Your task to perform on an android device: find which apps use the phone's location Image 0: 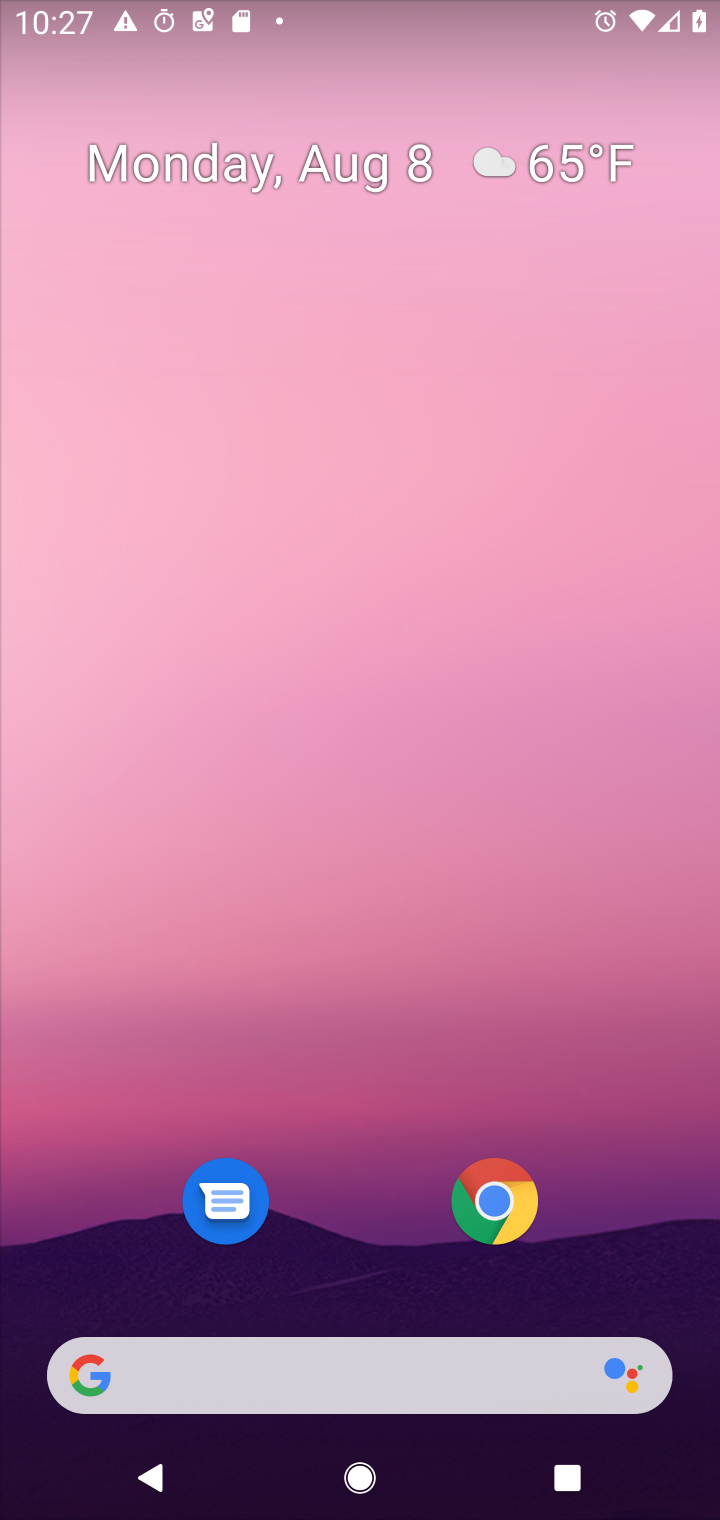
Step 0: press home button
Your task to perform on an android device: find which apps use the phone's location Image 1: 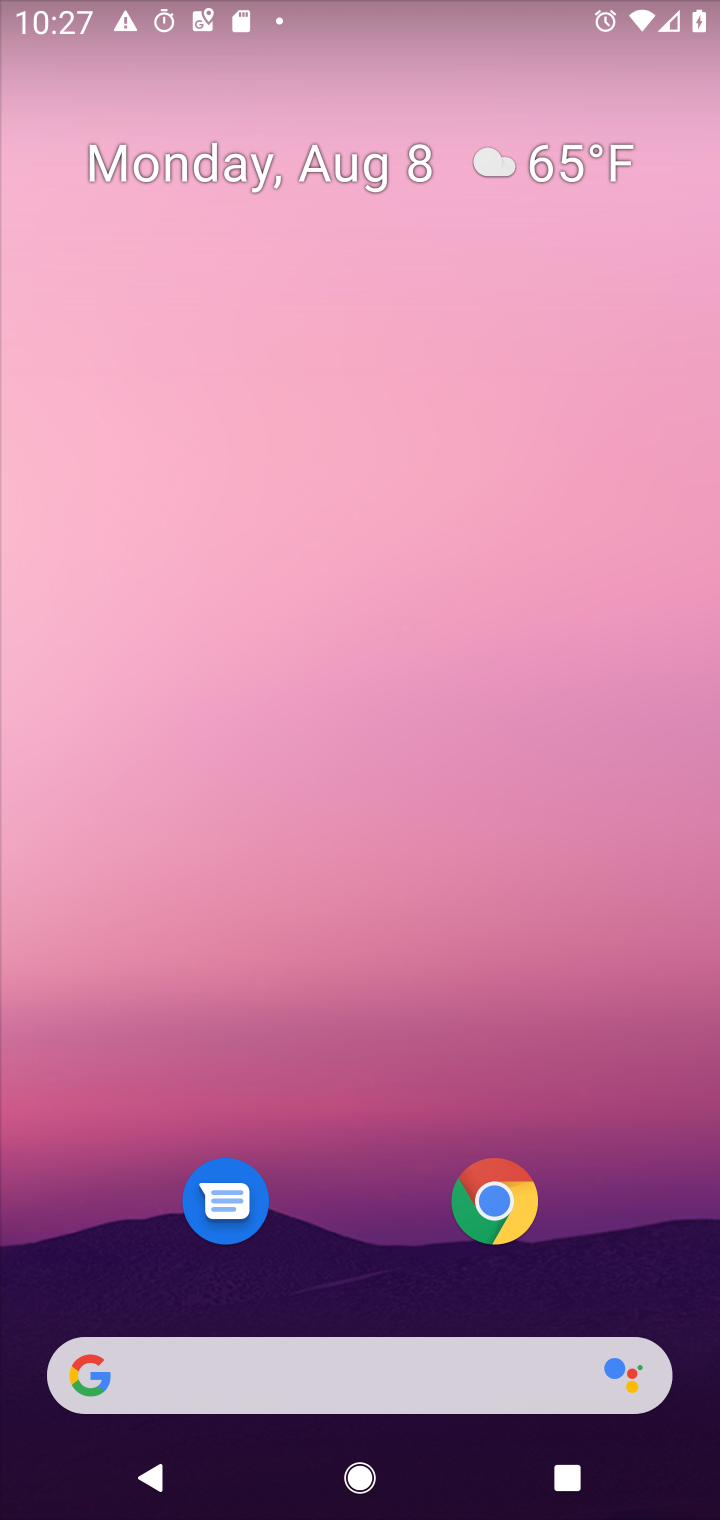
Step 1: drag from (588, 1248) to (624, 259)
Your task to perform on an android device: find which apps use the phone's location Image 2: 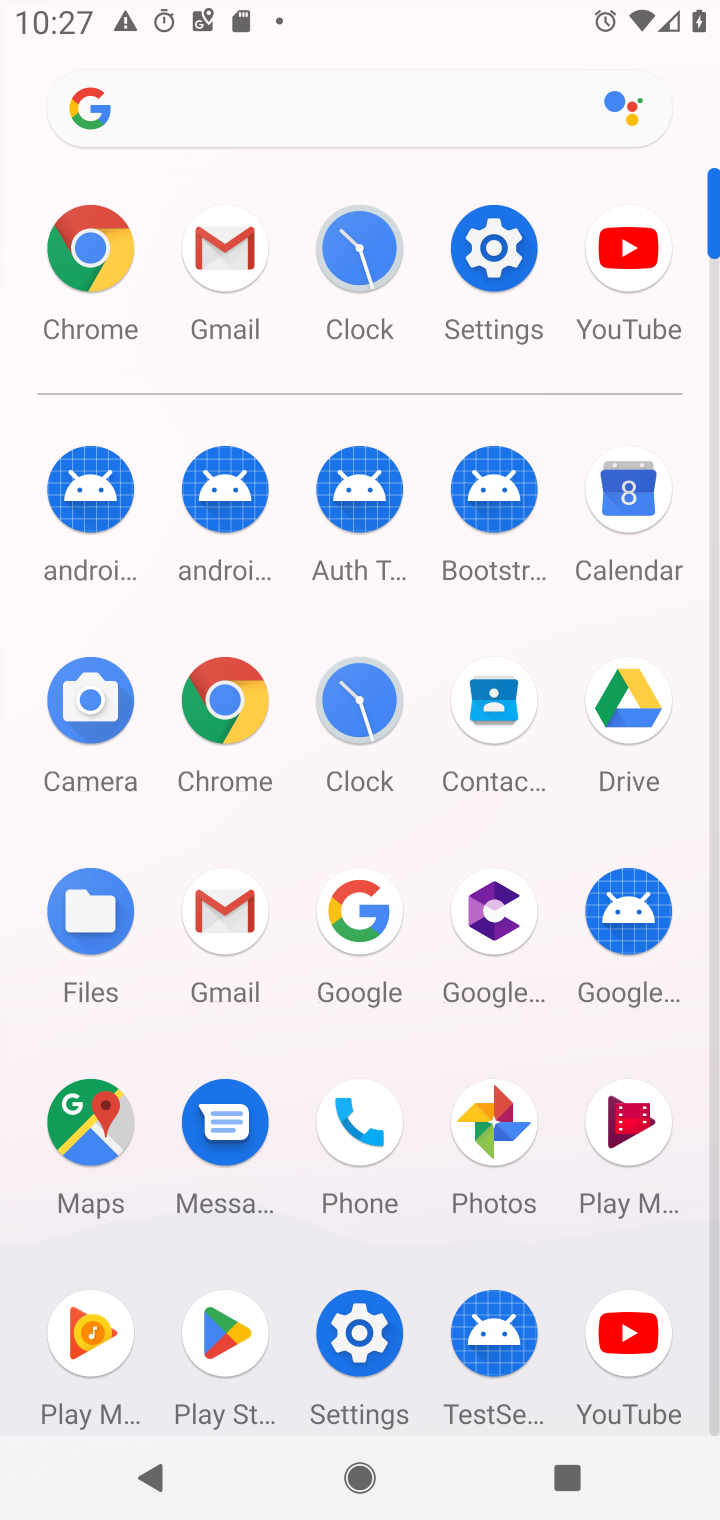
Step 2: click (486, 253)
Your task to perform on an android device: find which apps use the phone's location Image 3: 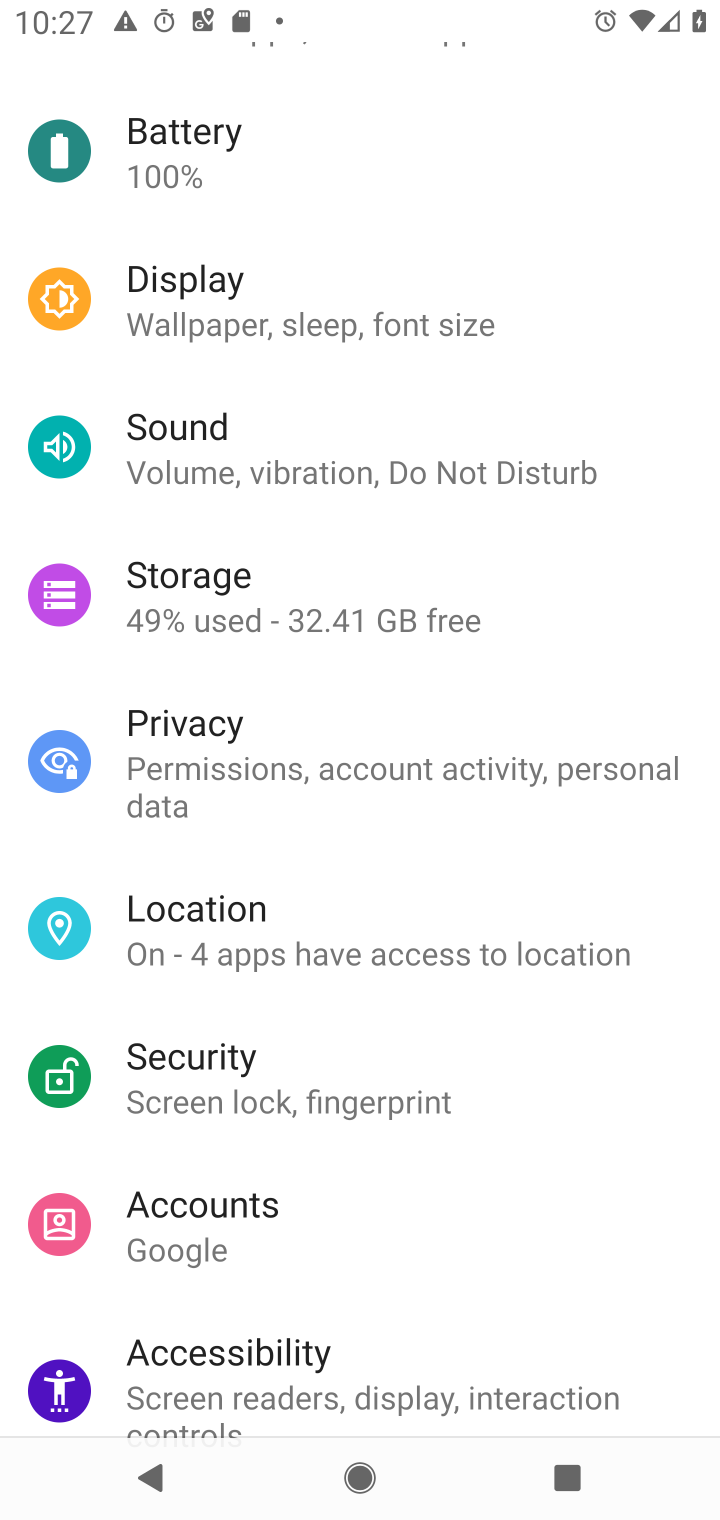
Step 3: drag from (666, 881) to (694, 701)
Your task to perform on an android device: find which apps use the phone's location Image 4: 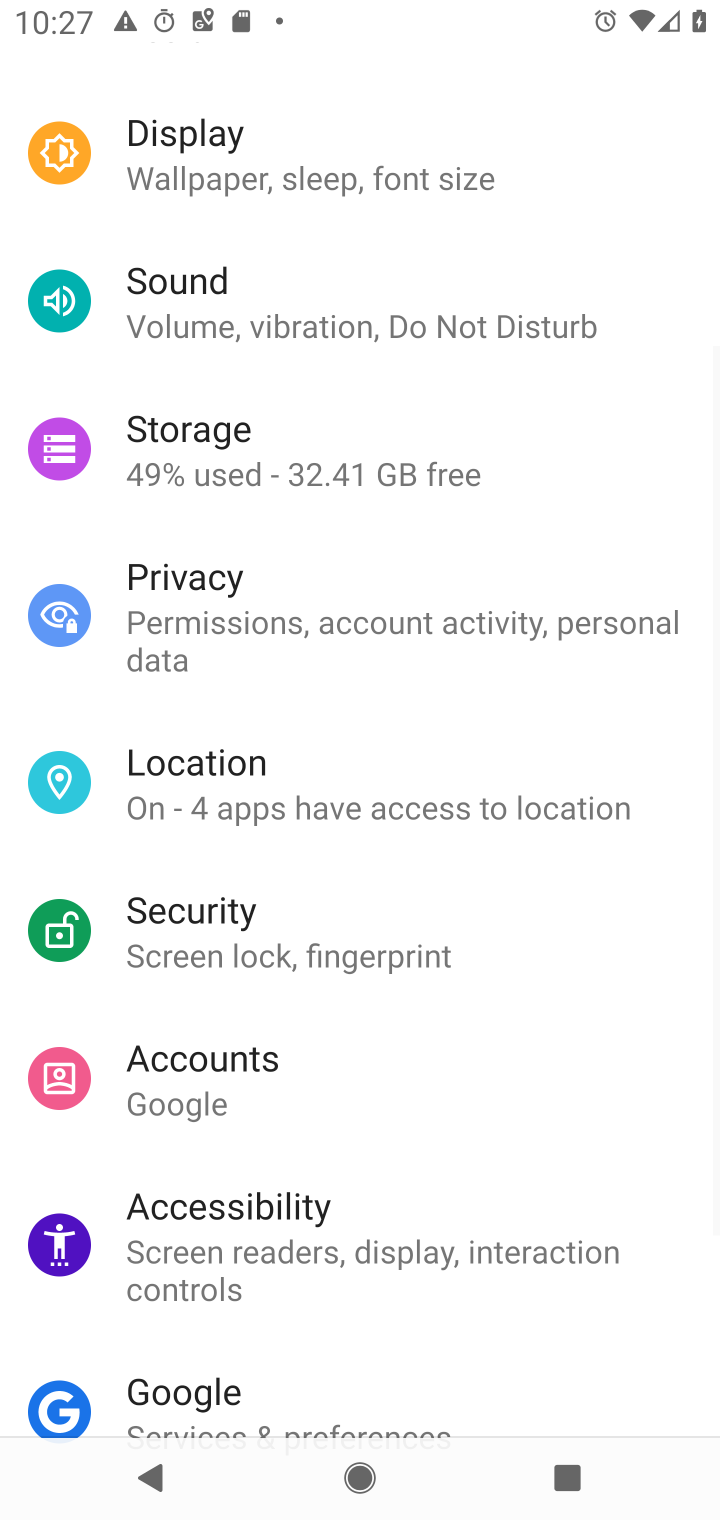
Step 4: drag from (641, 972) to (652, 733)
Your task to perform on an android device: find which apps use the phone's location Image 5: 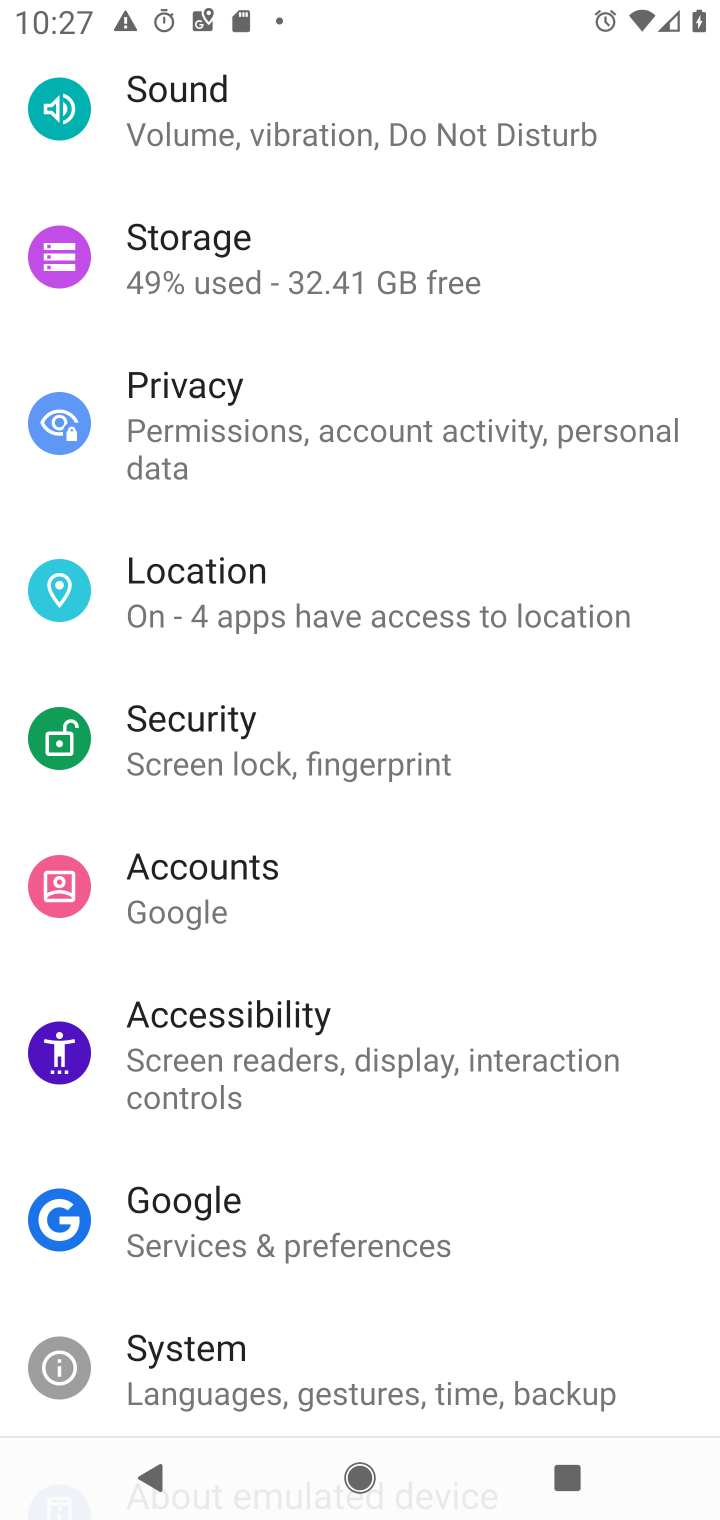
Step 5: click (527, 630)
Your task to perform on an android device: find which apps use the phone's location Image 6: 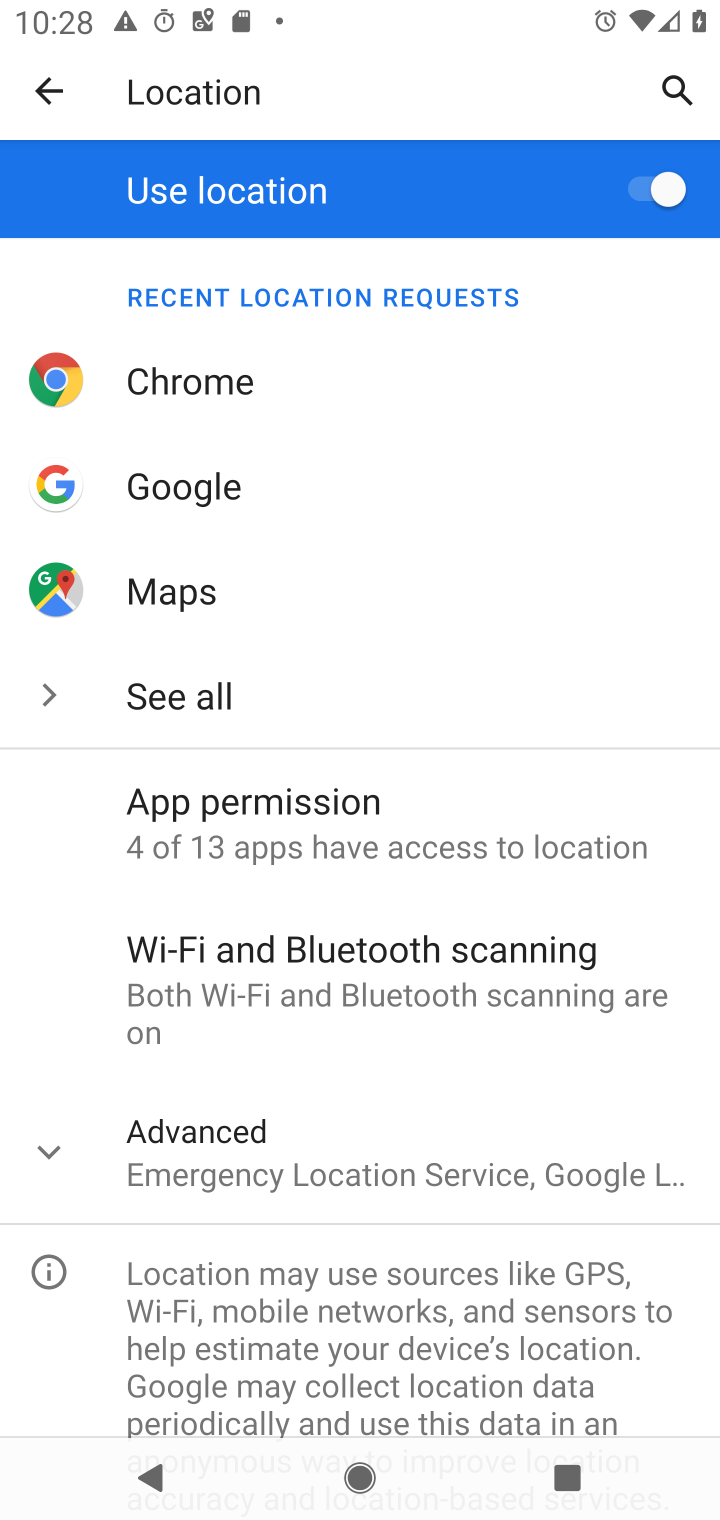
Step 6: click (420, 819)
Your task to perform on an android device: find which apps use the phone's location Image 7: 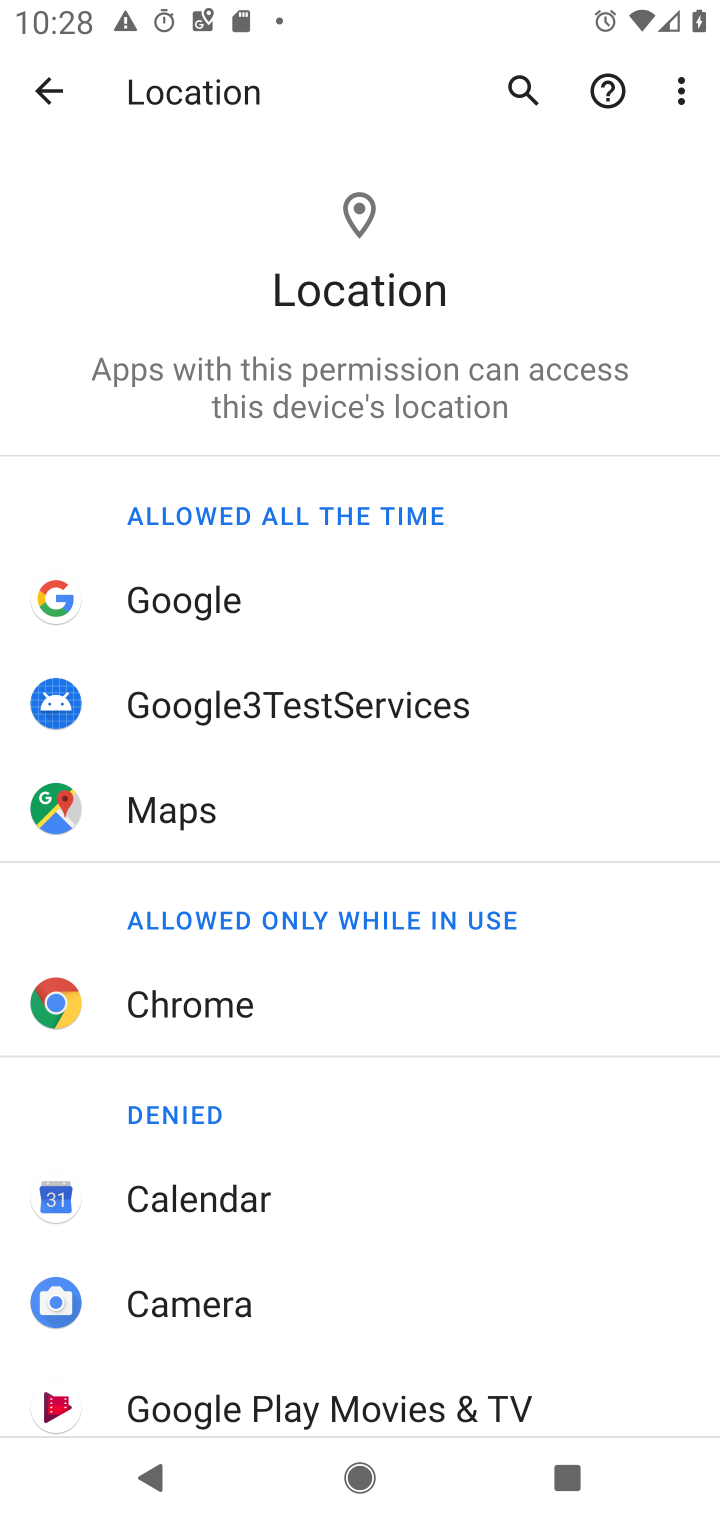
Step 7: drag from (544, 1080) to (552, 861)
Your task to perform on an android device: find which apps use the phone's location Image 8: 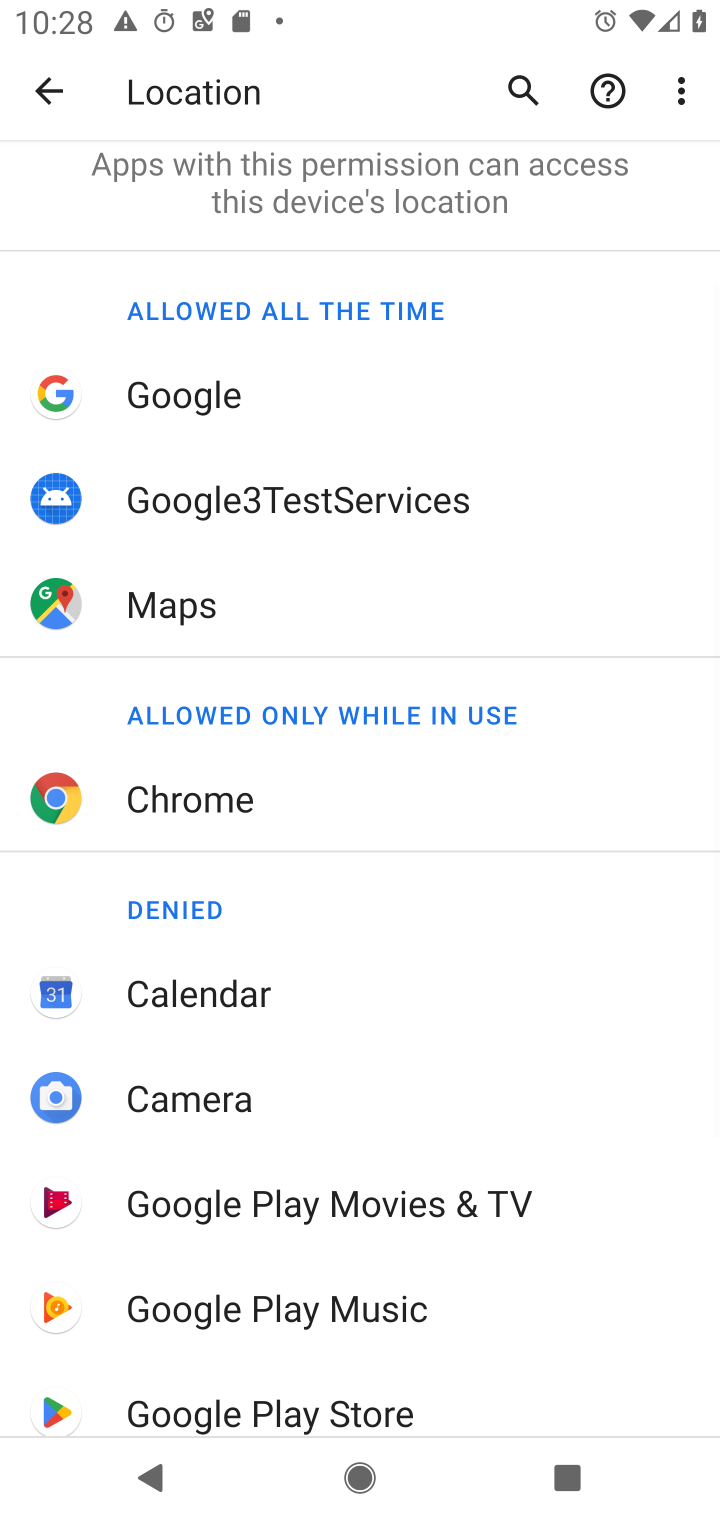
Step 8: drag from (566, 1060) to (574, 808)
Your task to perform on an android device: find which apps use the phone's location Image 9: 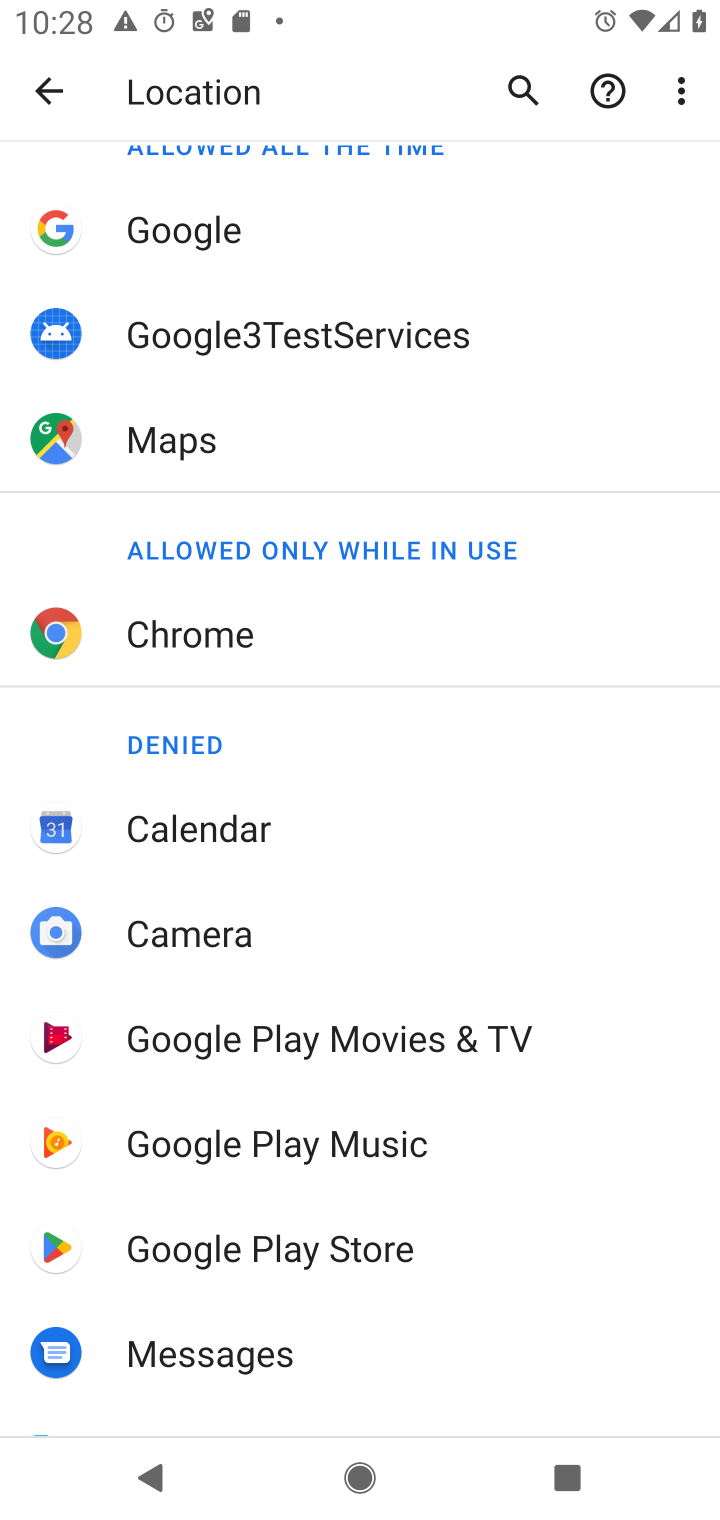
Step 9: drag from (624, 1140) to (609, 740)
Your task to perform on an android device: find which apps use the phone's location Image 10: 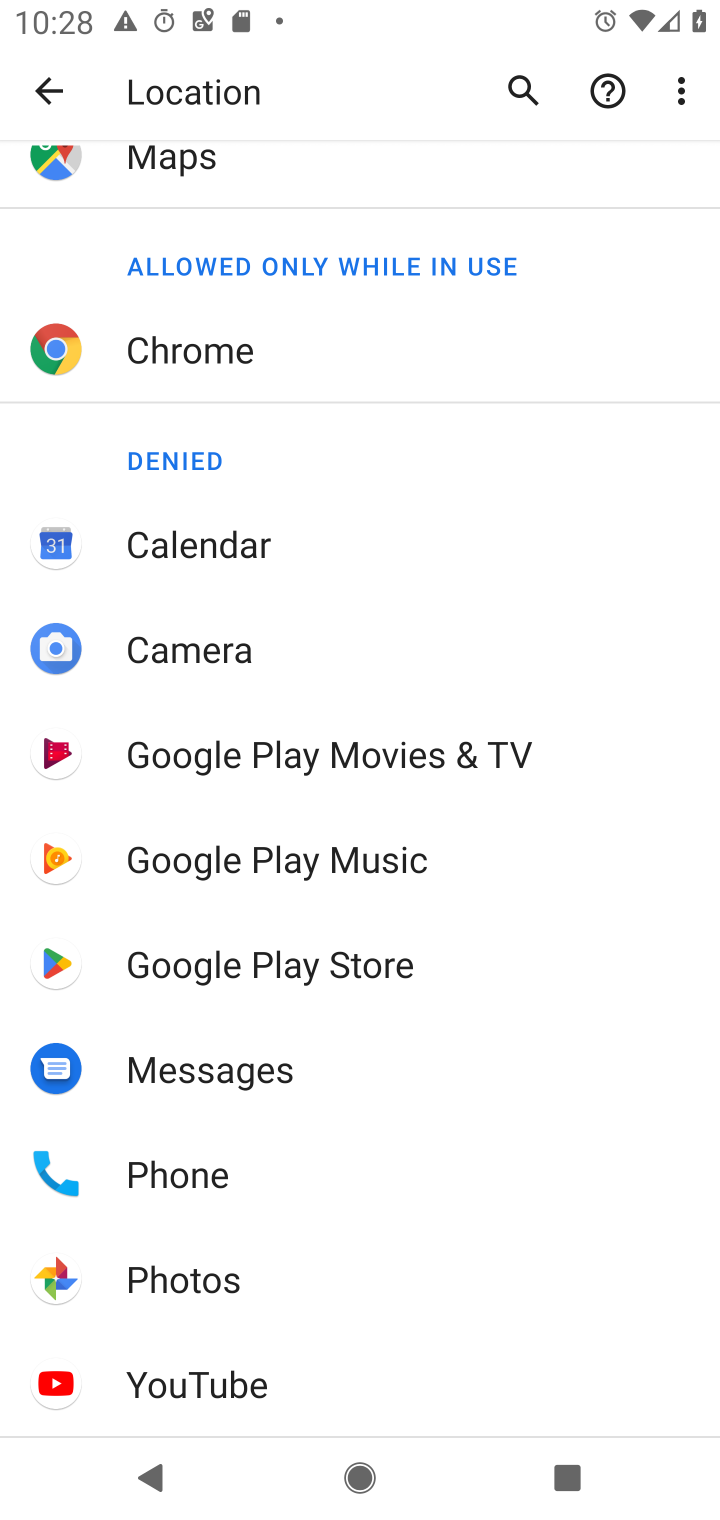
Step 10: click (394, 1297)
Your task to perform on an android device: find which apps use the phone's location Image 11: 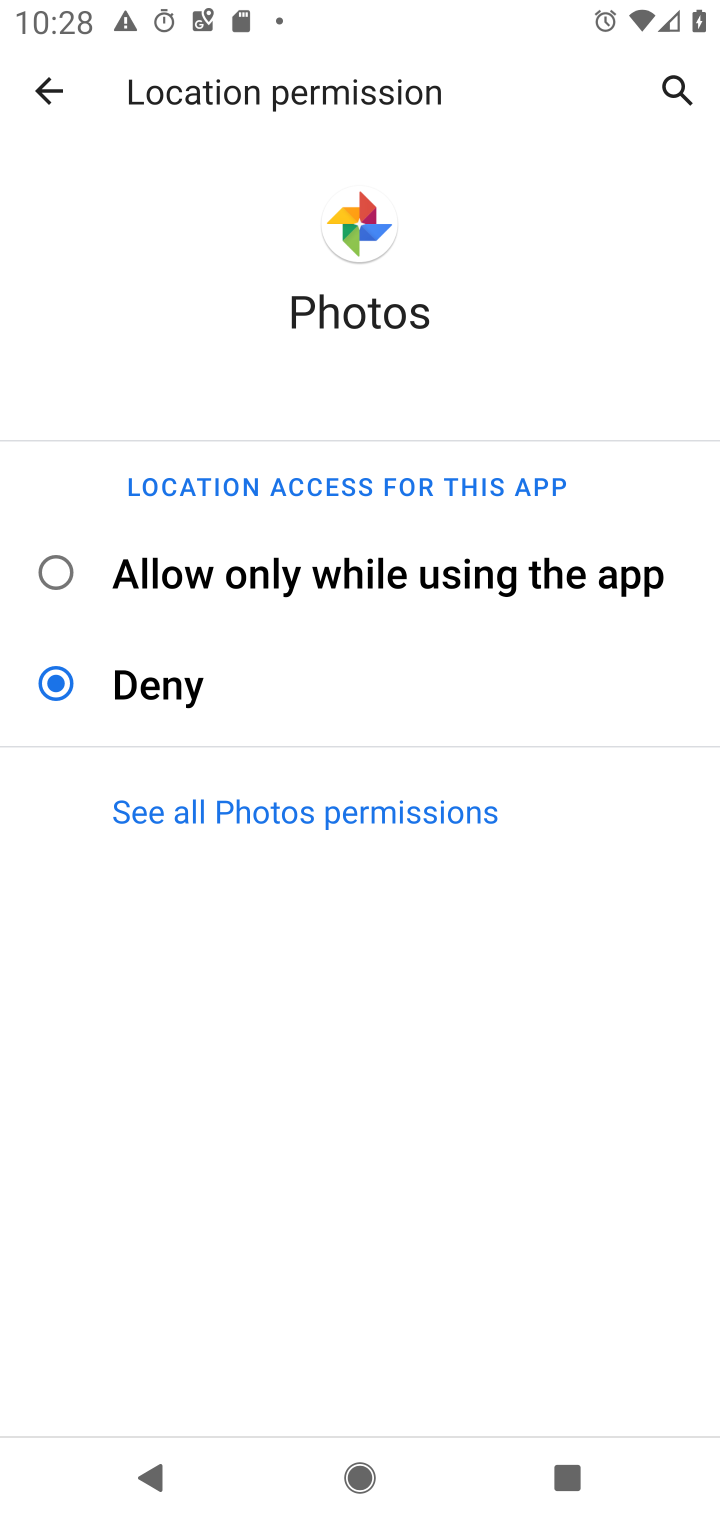
Step 11: click (311, 589)
Your task to perform on an android device: find which apps use the phone's location Image 12: 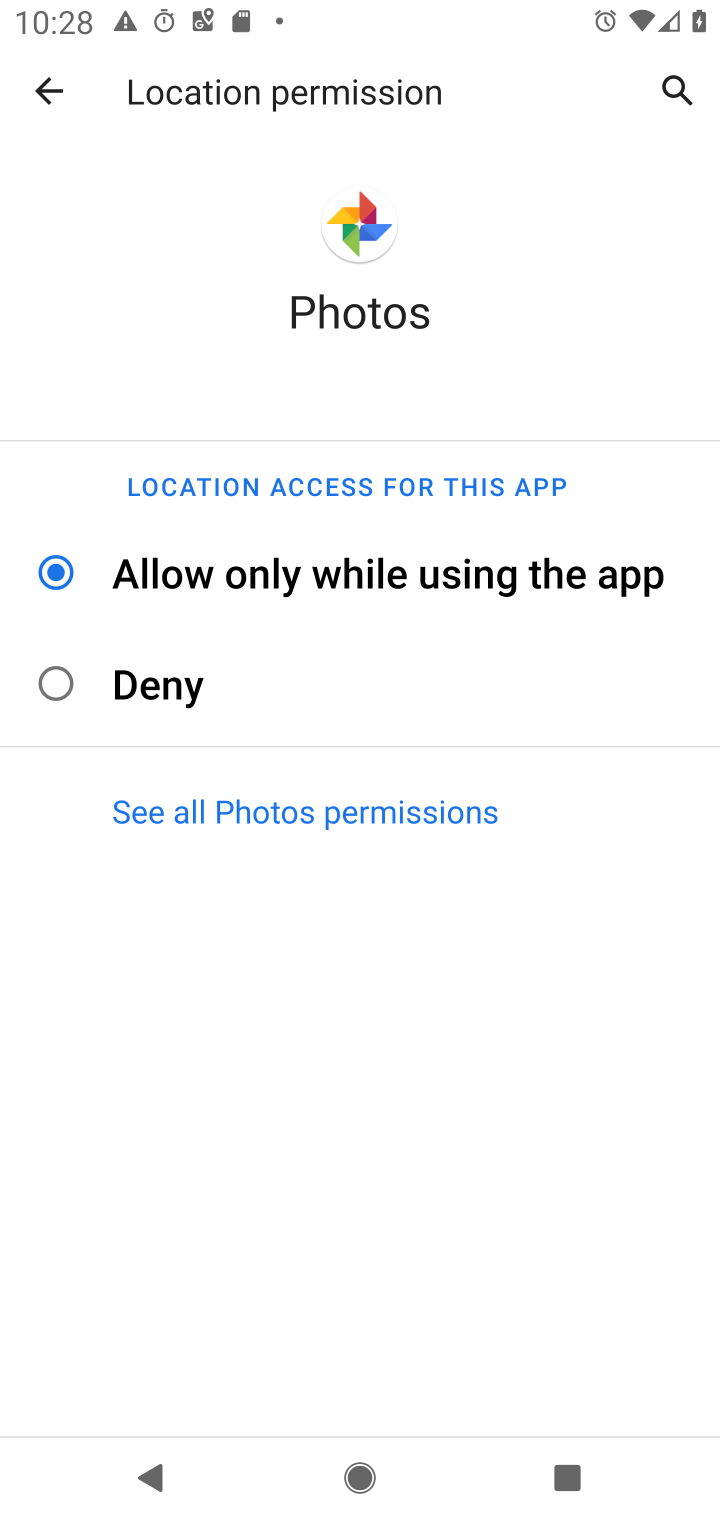
Step 12: task complete